Your task to perform on an android device: Search for hotels in Buenos aires Image 0: 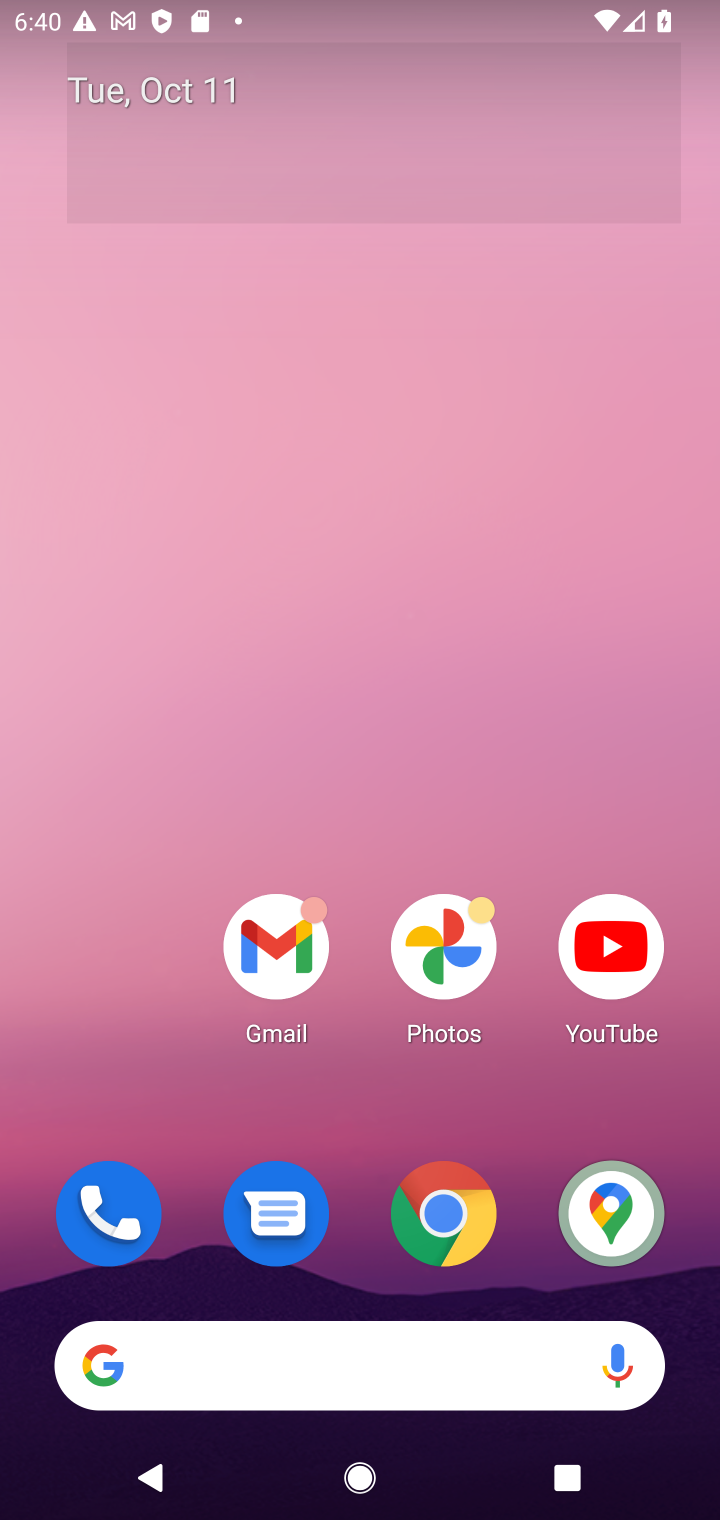
Step 0: drag from (295, 1345) to (299, 134)
Your task to perform on an android device: Search for hotels in Buenos aires Image 1: 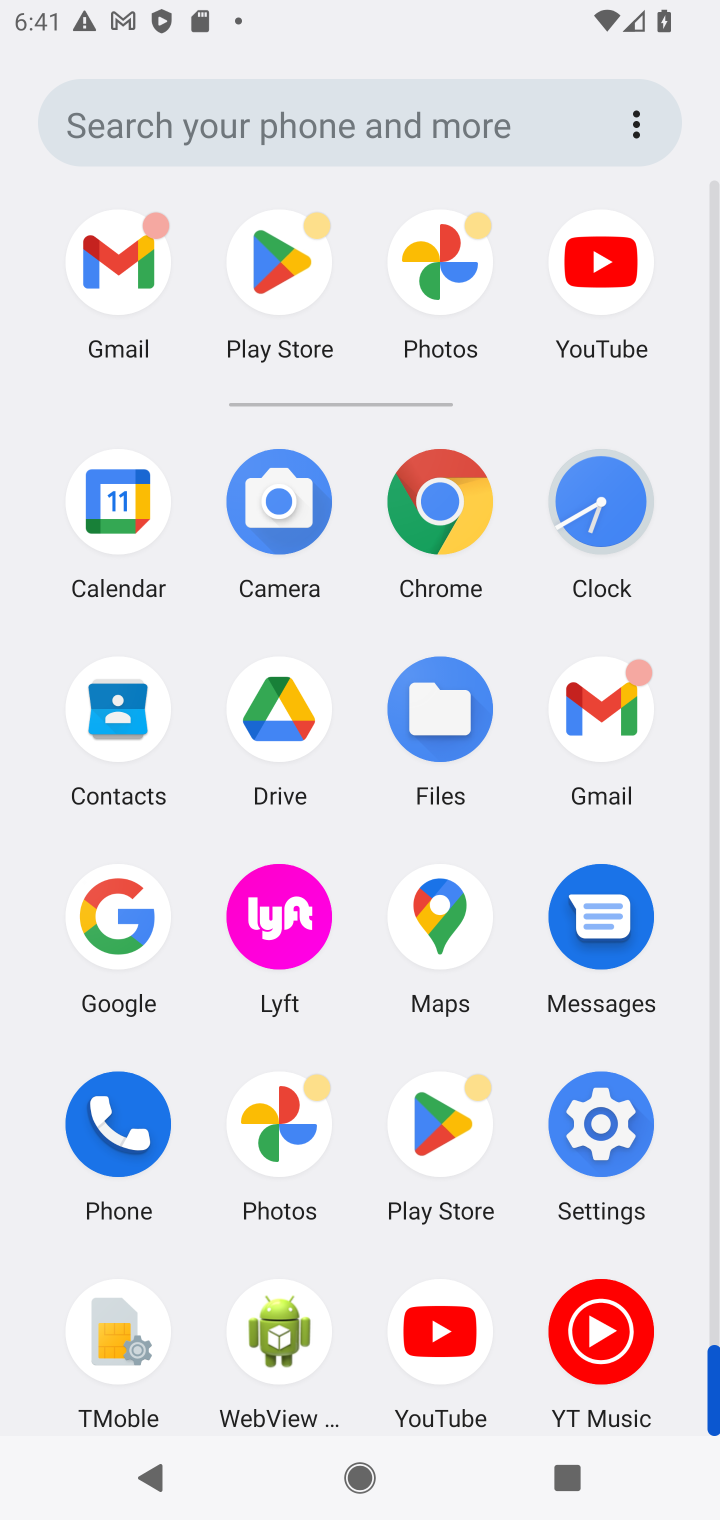
Step 1: click (120, 917)
Your task to perform on an android device: Search for hotels in Buenos aires Image 2: 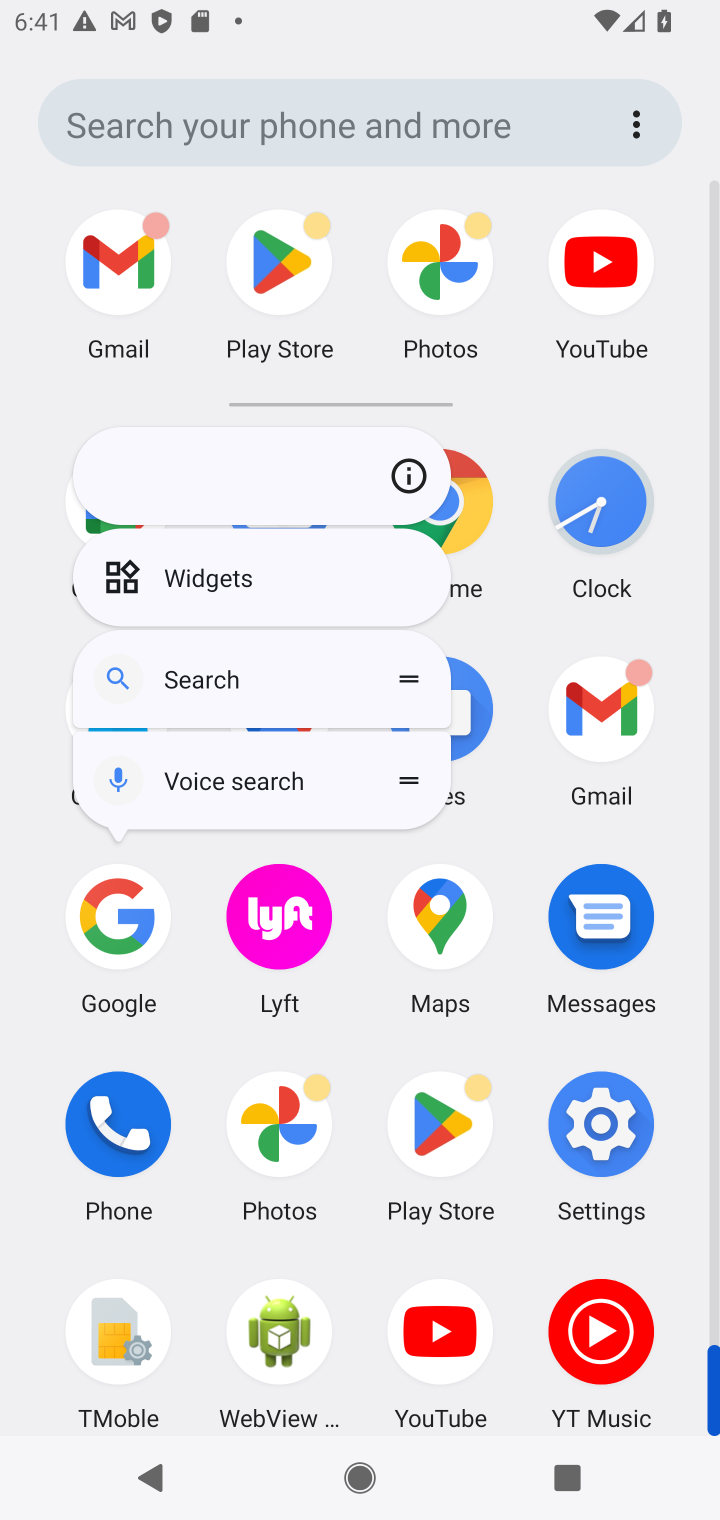
Step 2: click (116, 931)
Your task to perform on an android device: Search for hotels in Buenos aires Image 3: 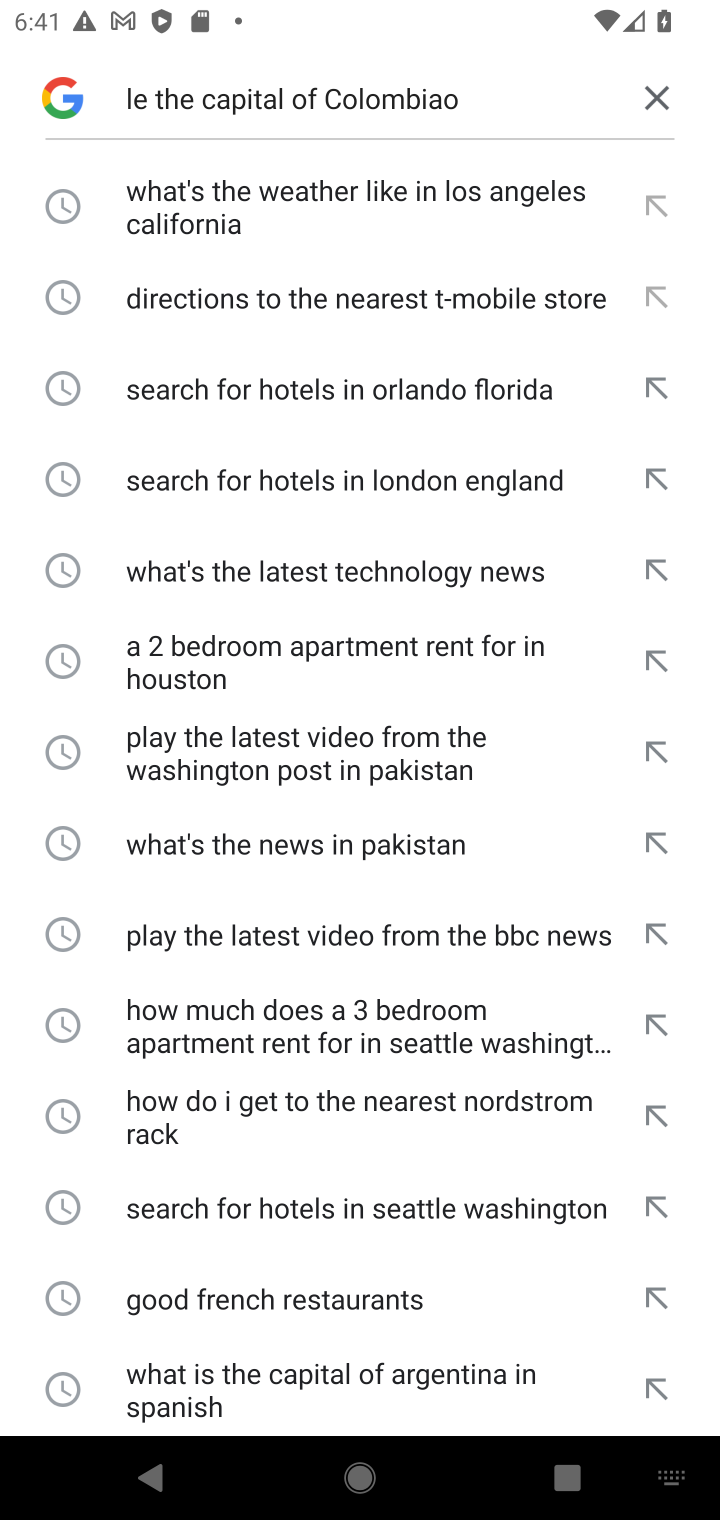
Step 3: click (658, 104)
Your task to perform on an android device: Search for hotels in Buenos aires Image 4: 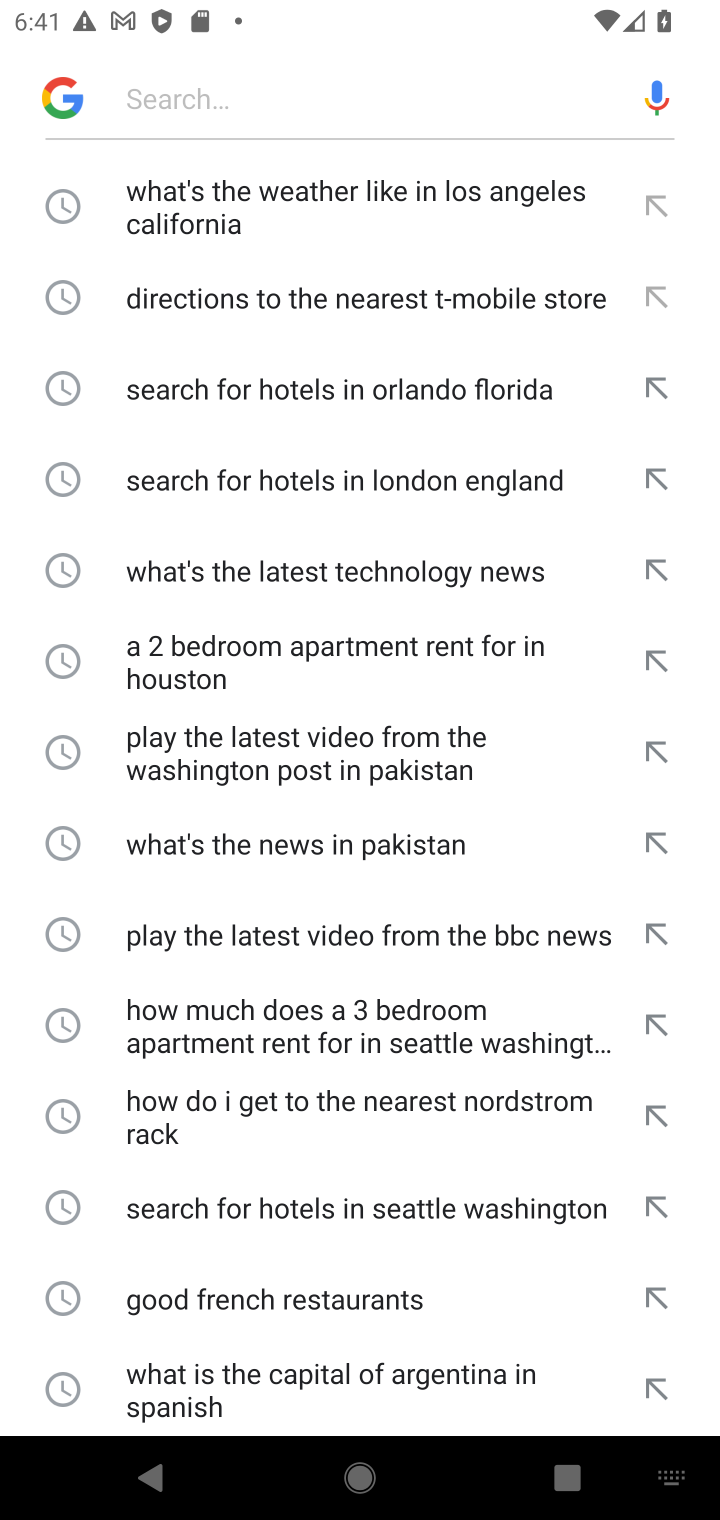
Step 4: type "Search for hotels in Buenos aires"
Your task to perform on an android device: Search for hotels in Buenos aires Image 5: 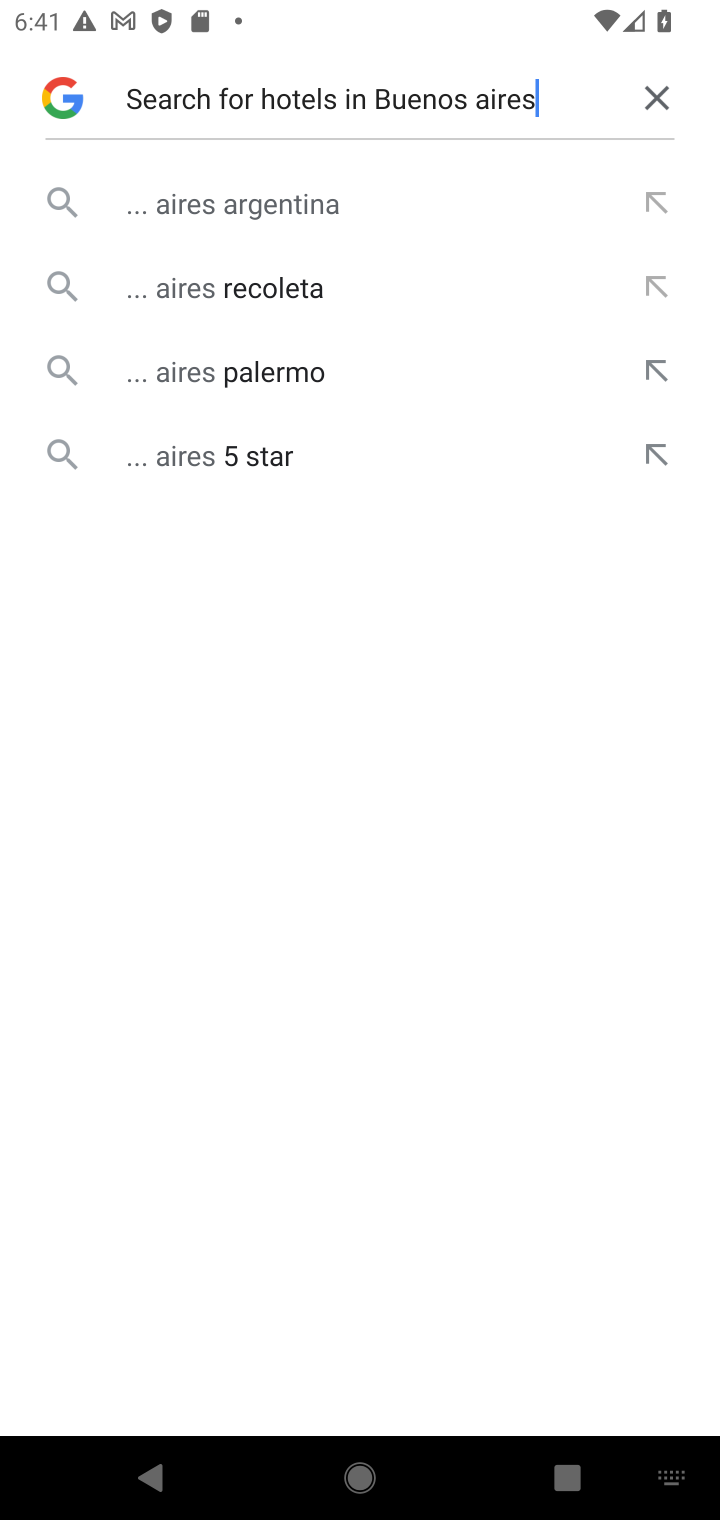
Step 5: click (269, 218)
Your task to perform on an android device: Search for hotels in Buenos aires Image 6: 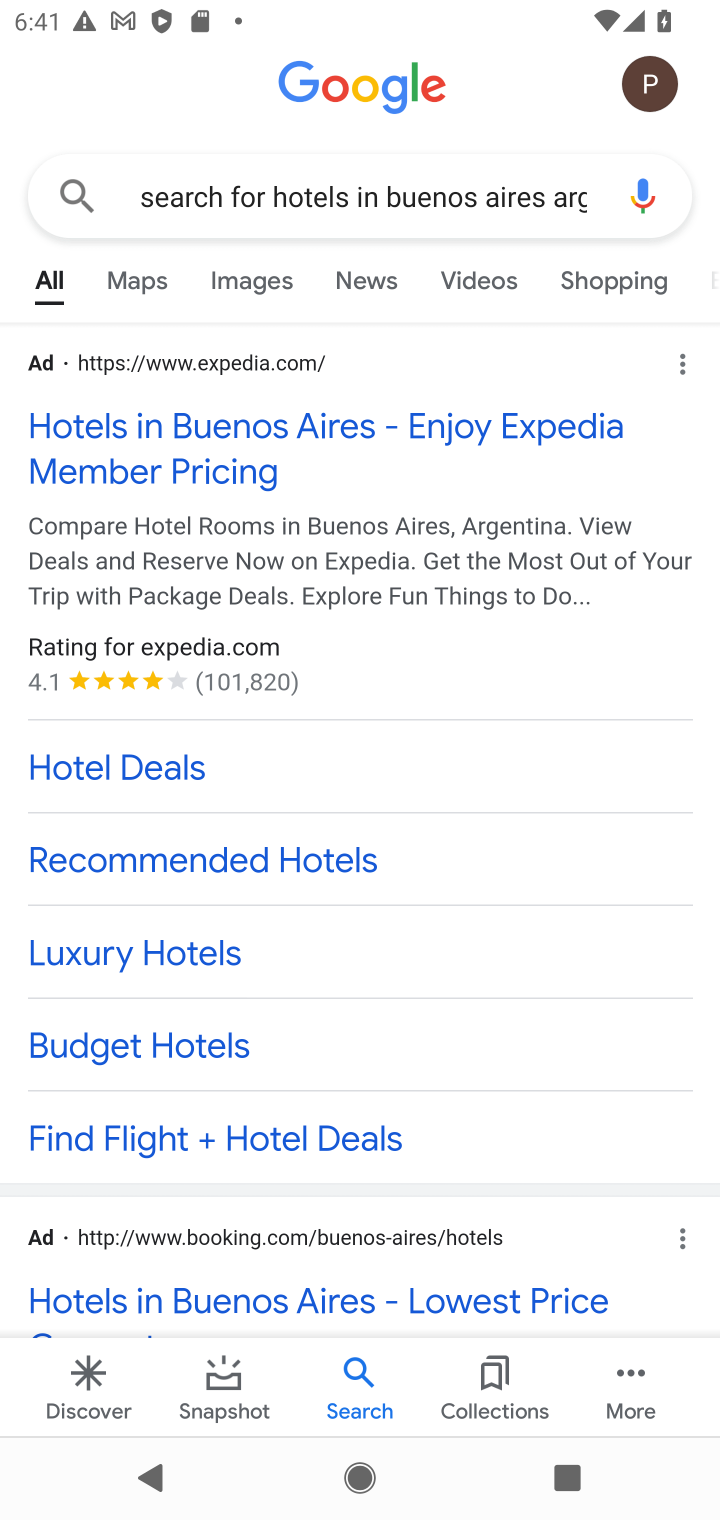
Step 6: click (172, 445)
Your task to perform on an android device: Search for hotels in Buenos aires Image 7: 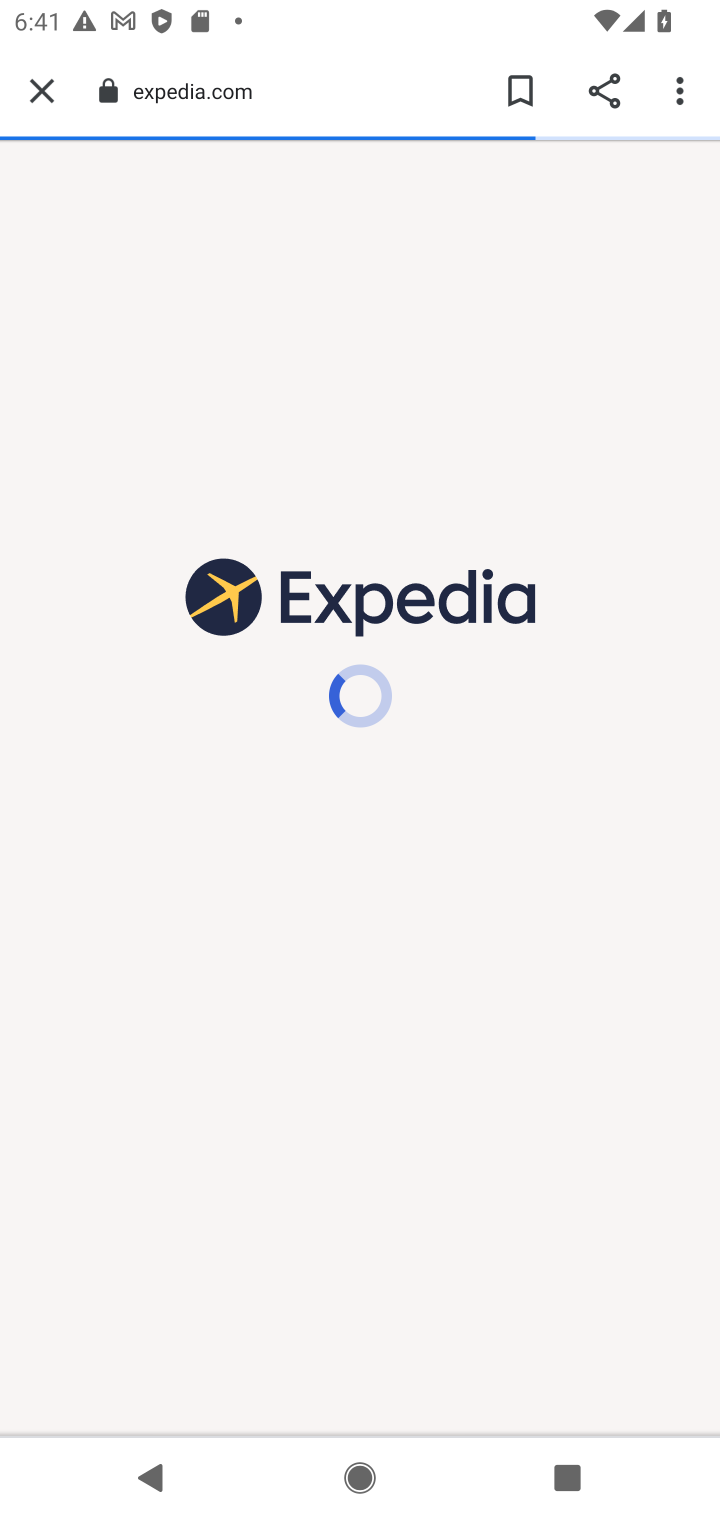
Step 7: task complete